Your task to perform on an android device: turn off wifi Image 0: 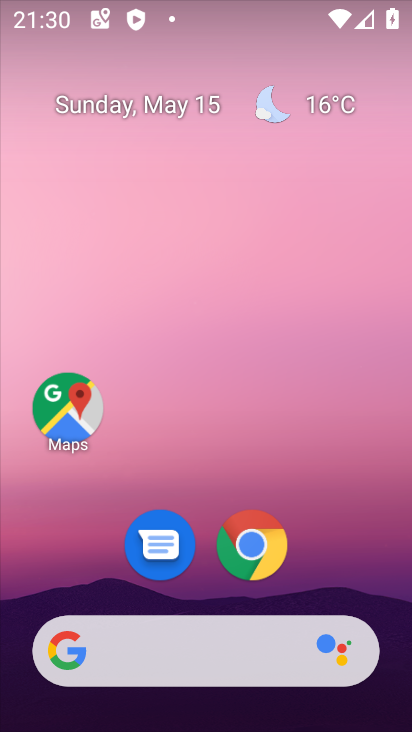
Step 0: drag from (333, 546) to (221, 141)
Your task to perform on an android device: turn off wifi Image 1: 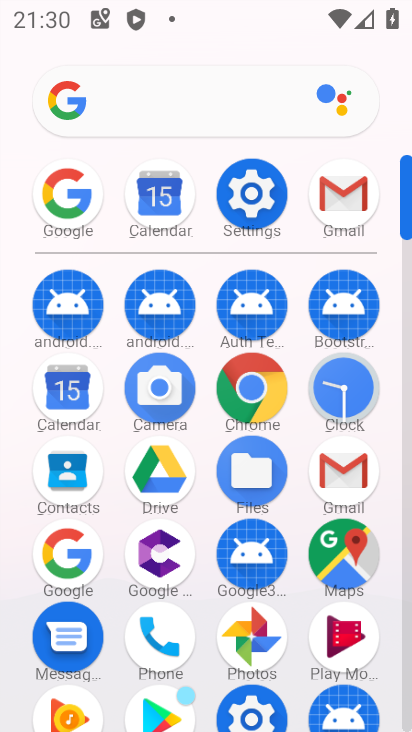
Step 1: click (255, 195)
Your task to perform on an android device: turn off wifi Image 2: 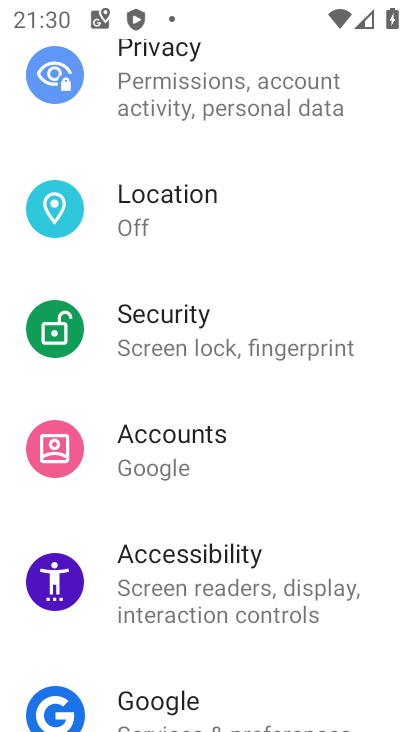
Step 2: drag from (275, 169) to (291, 275)
Your task to perform on an android device: turn off wifi Image 3: 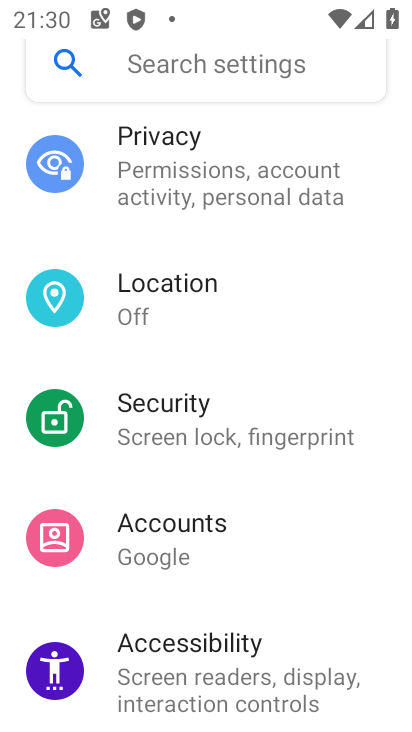
Step 3: drag from (268, 235) to (291, 328)
Your task to perform on an android device: turn off wifi Image 4: 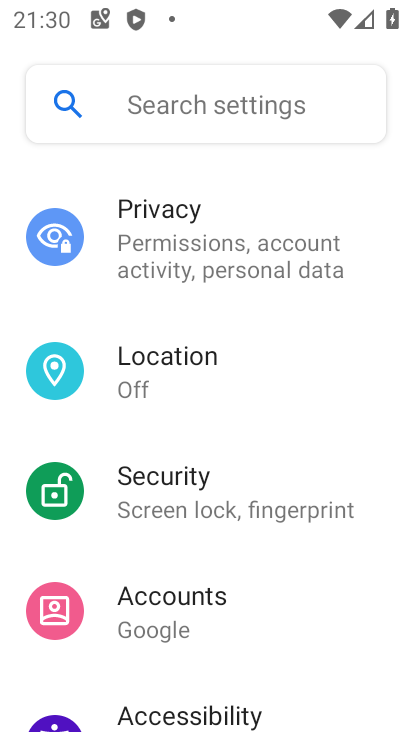
Step 4: drag from (260, 206) to (264, 338)
Your task to perform on an android device: turn off wifi Image 5: 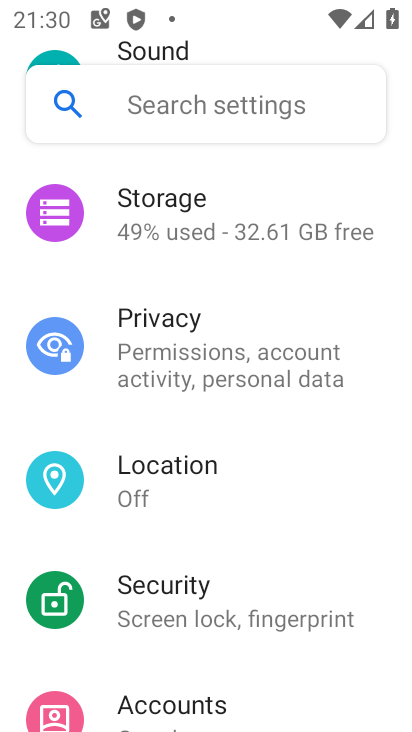
Step 5: drag from (228, 267) to (260, 353)
Your task to perform on an android device: turn off wifi Image 6: 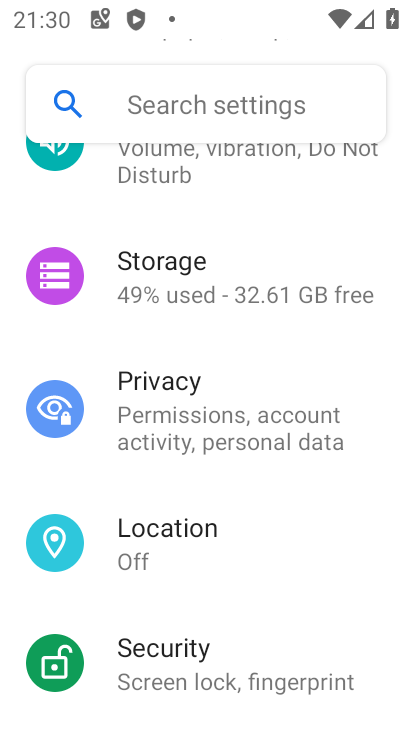
Step 6: drag from (254, 215) to (305, 362)
Your task to perform on an android device: turn off wifi Image 7: 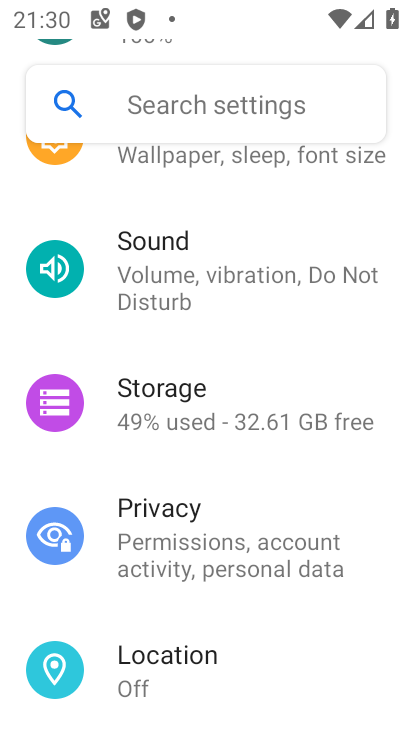
Step 7: drag from (264, 216) to (298, 342)
Your task to perform on an android device: turn off wifi Image 8: 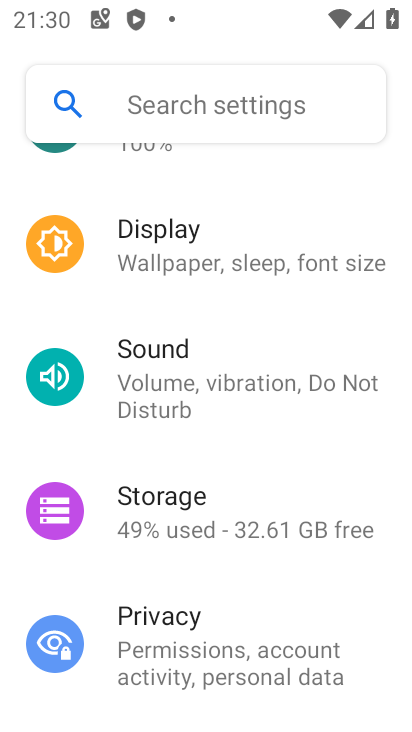
Step 8: drag from (222, 194) to (242, 306)
Your task to perform on an android device: turn off wifi Image 9: 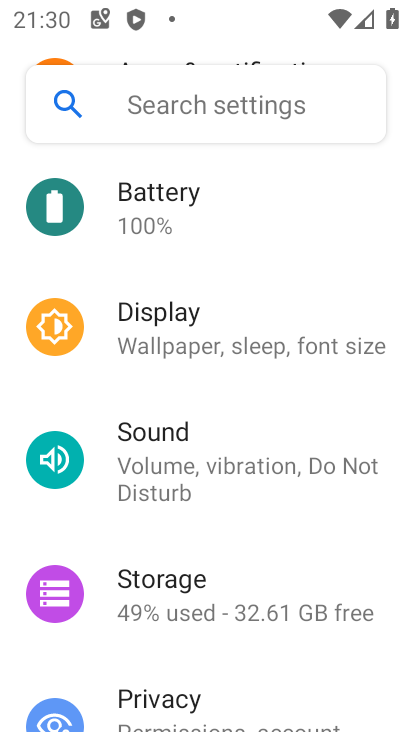
Step 9: drag from (237, 240) to (256, 400)
Your task to perform on an android device: turn off wifi Image 10: 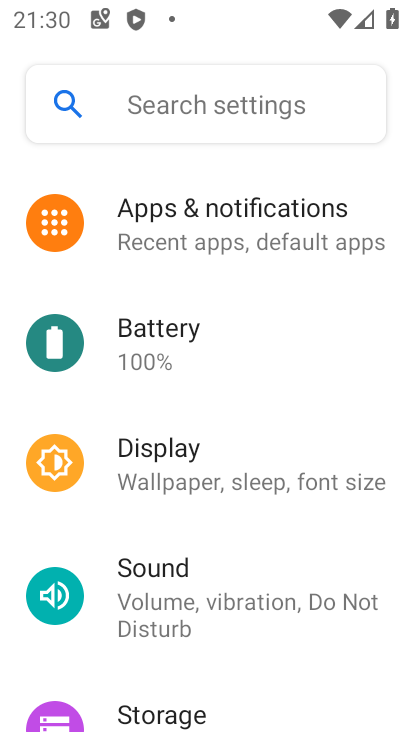
Step 10: drag from (216, 276) to (241, 389)
Your task to perform on an android device: turn off wifi Image 11: 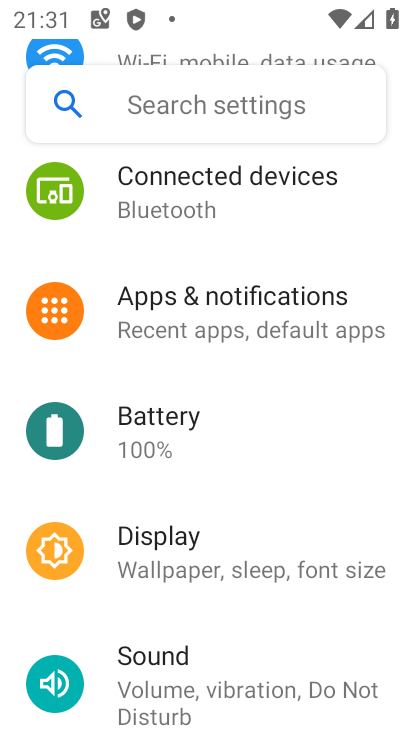
Step 11: drag from (235, 283) to (241, 411)
Your task to perform on an android device: turn off wifi Image 12: 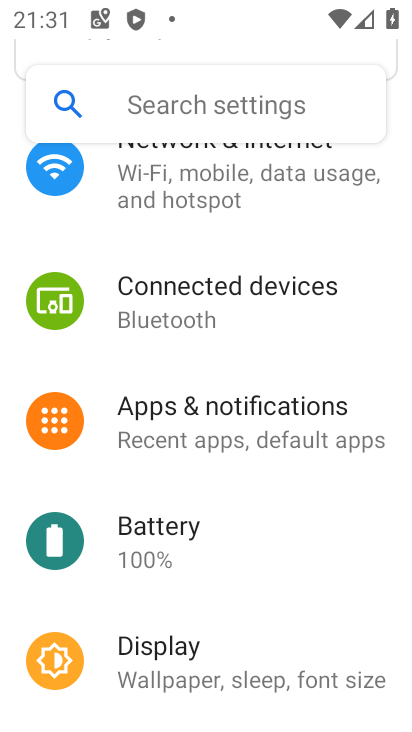
Step 12: drag from (185, 244) to (244, 449)
Your task to perform on an android device: turn off wifi Image 13: 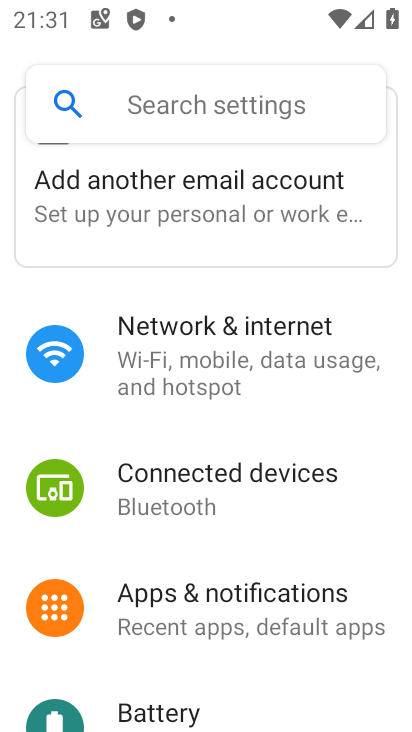
Step 13: click (225, 322)
Your task to perform on an android device: turn off wifi Image 14: 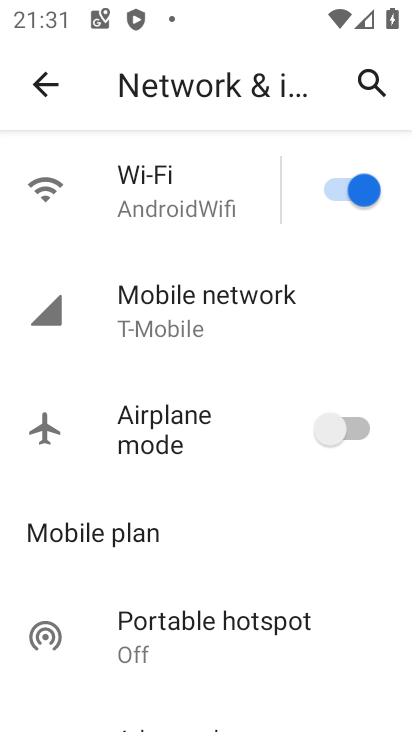
Step 14: click (377, 192)
Your task to perform on an android device: turn off wifi Image 15: 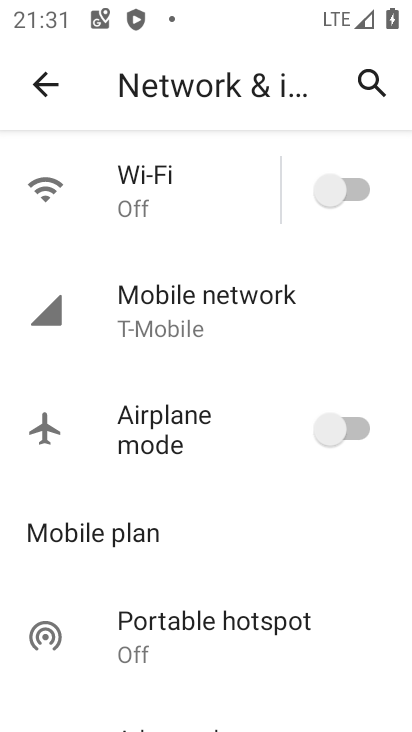
Step 15: task complete